Your task to perform on an android device: Go to Wikipedia Image 0: 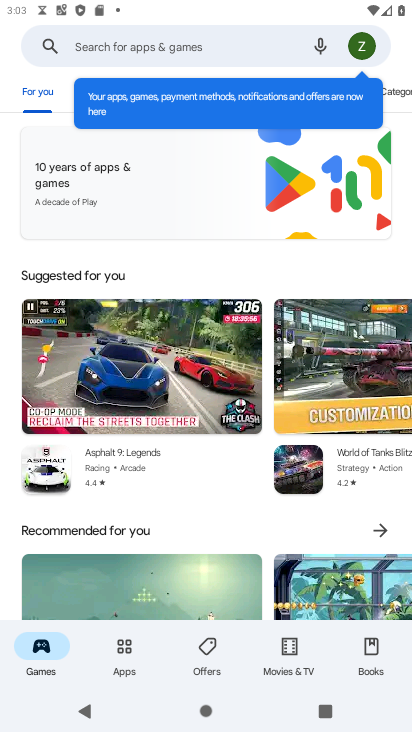
Step 0: press home button
Your task to perform on an android device: Go to Wikipedia Image 1: 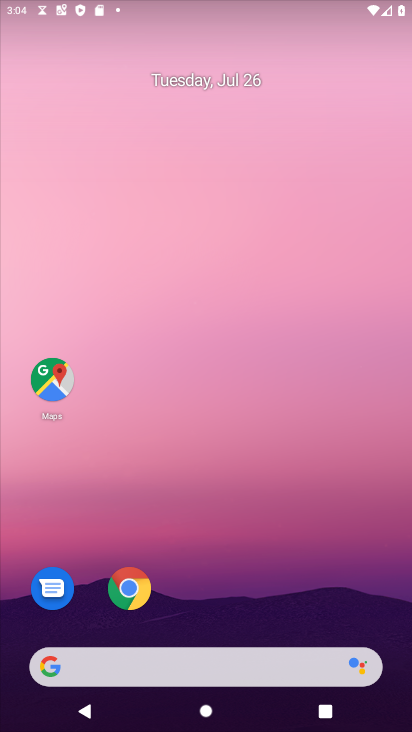
Step 1: drag from (291, 554) to (332, 22)
Your task to perform on an android device: Go to Wikipedia Image 2: 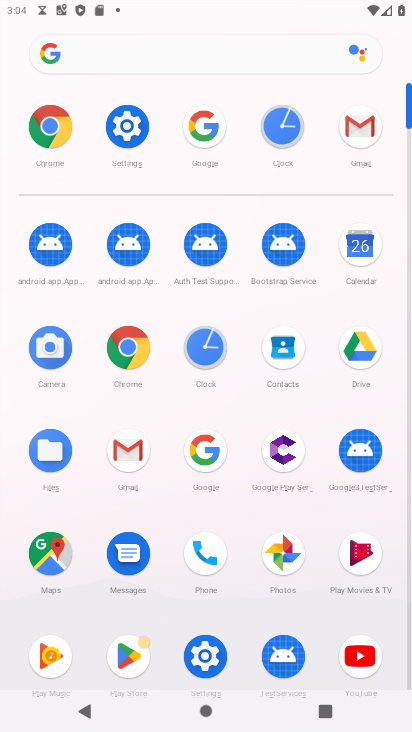
Step 2: click (50, 124)
Your task to perform on an android device: Go to Wikipedia Image 3: 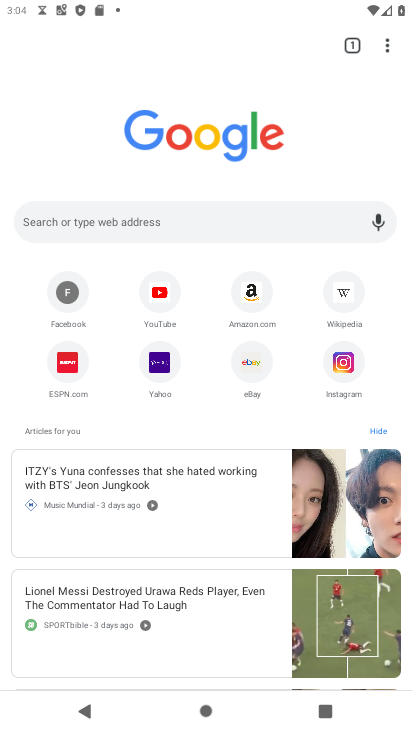
Step 3: click (335, 300)
Your task to perform on an android device: Go to Wikipedia Image 4: 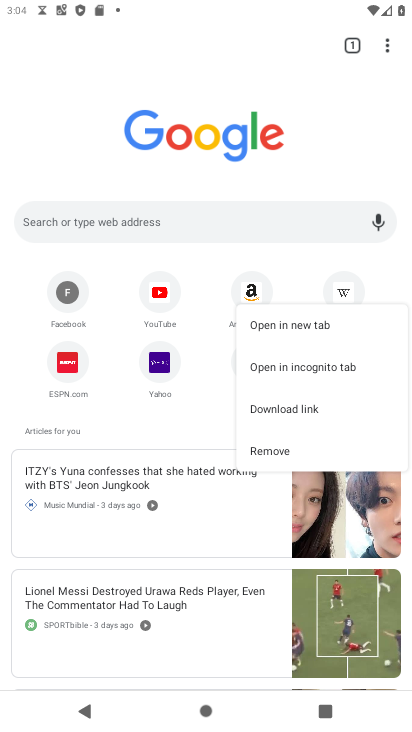
Step 4: click (336, 299)
Your task to perform on an android device: Go to Wikipedia Image 5: 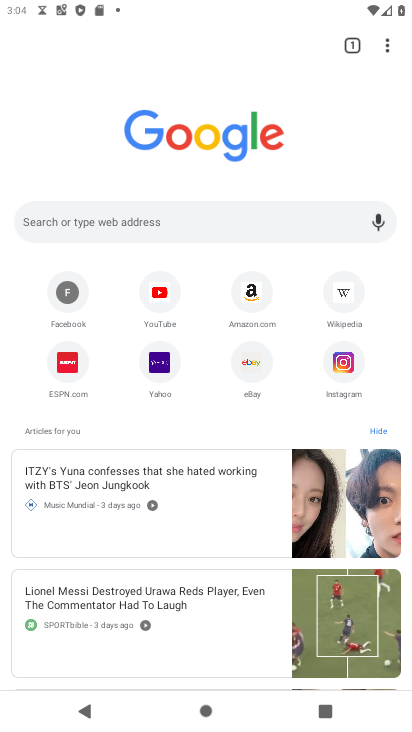
Step 5: click (339, 292)
Your task to perform on an android device: Go to Wikipedia Image 6: 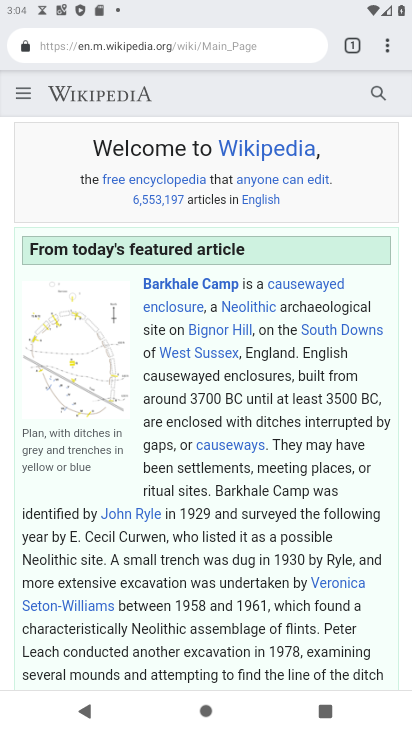
Step 6: task complete